Your task to perform on an android device: change your default location settings in chrome Image 0: 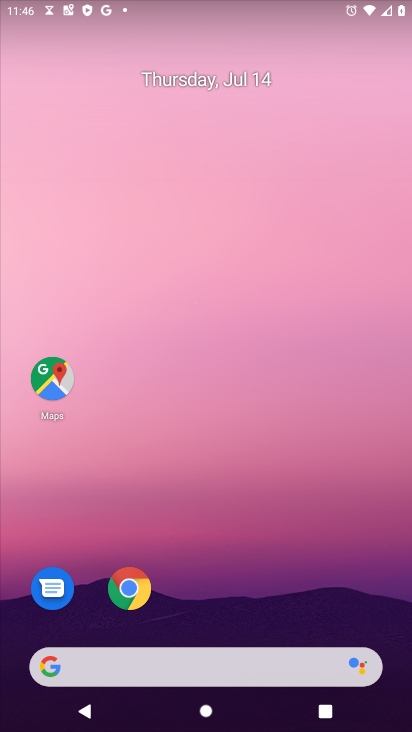
Step 0: press home button
Your task to perform on an android device: change your default location settings in chrome Image 1: 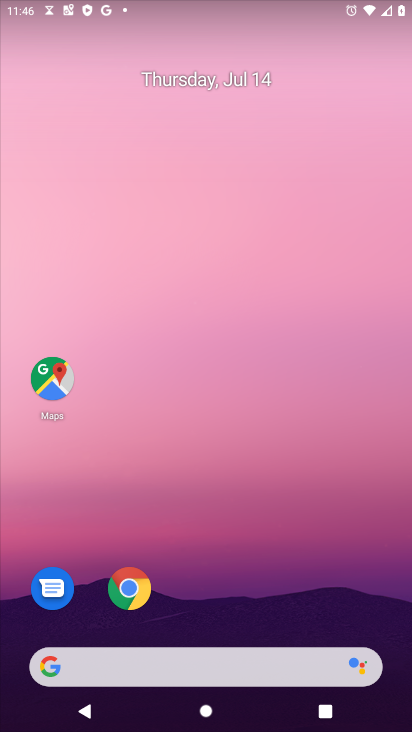
Step 1: click (137, 591)
Your task to perform on an android device: change your default location settings in chrome Image 2: 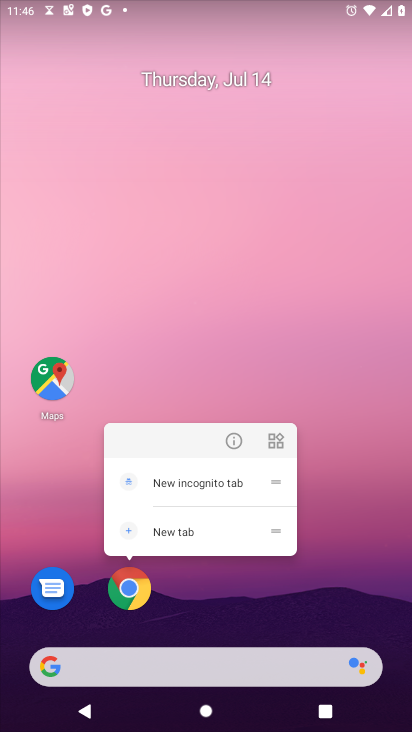
Step 2: click (130, 592)
Your task to perform on an android device: change your default location settings in chrome Image 3: 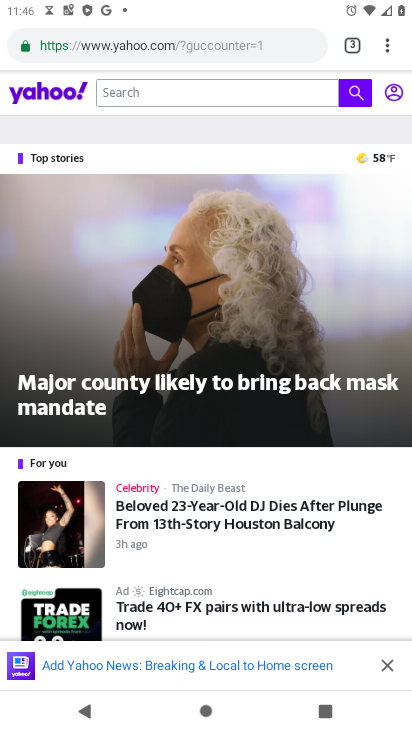
Step 3: drag from (385, 47) to (232, 556)
Your task to perform on an android device: change your default location settings in chrome Image 4: 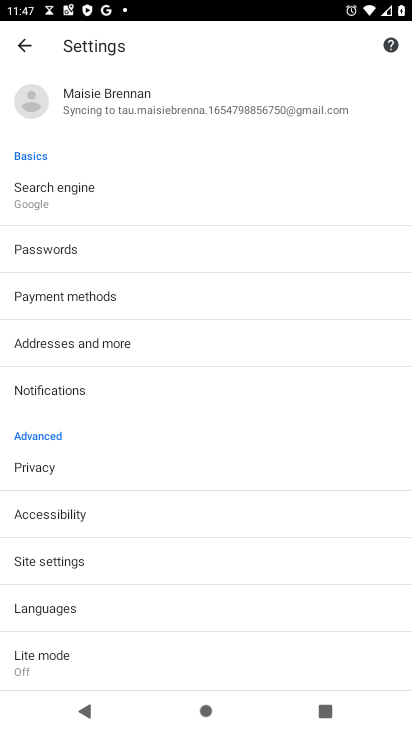
Step 4: click (56, 568)
Your task to perform on an android device: change your default location settings in chrome Image 5: 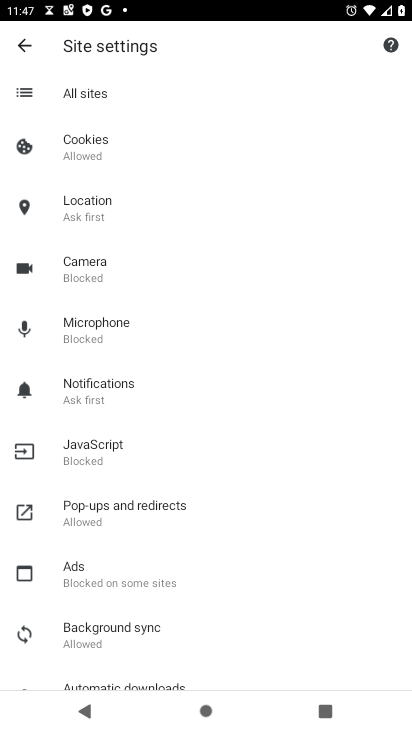
Step 5: click (100, 210)
Your task to perform on an android device: change your default location settings in chrome Image 6: 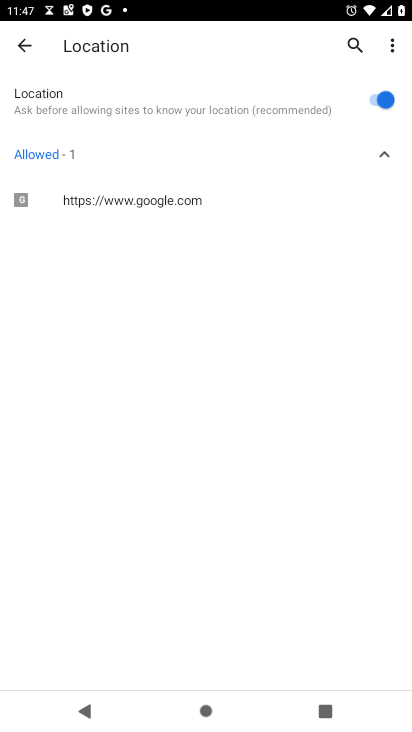
Step 6: click (371, 99)
Your task to perform on an android device: change your default location settings in chrome Image 7: 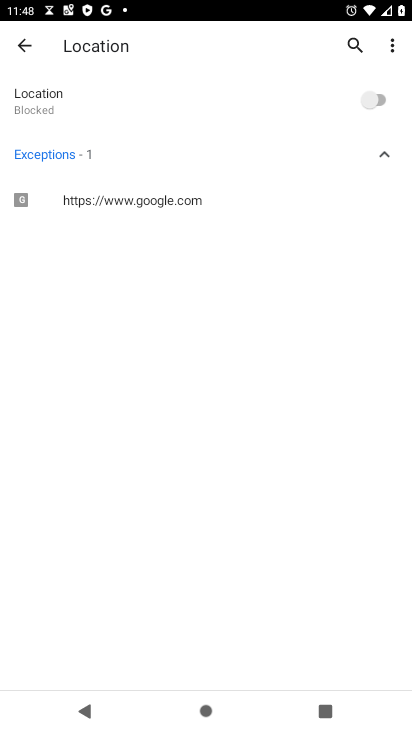
Step 7: task complete